Your task to perform on an android device: Open the Play Movies app and select the watchlist tab. Image 0: 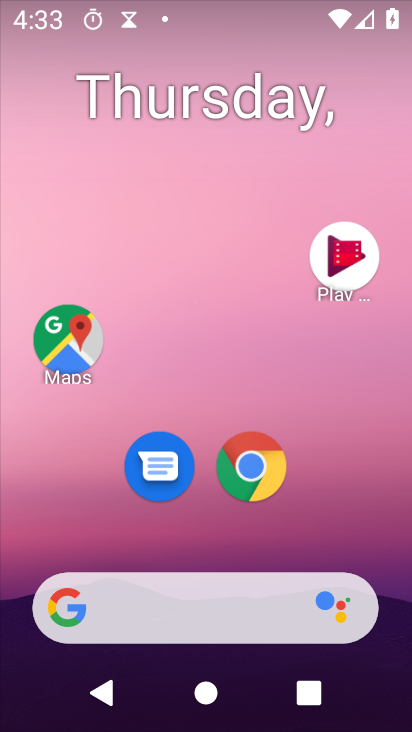
Step 0: drag from (218, 591) to (254, 1)
Your task to perform on an android device: Open the Play Movies app and select the watchlist tab. Image 1: 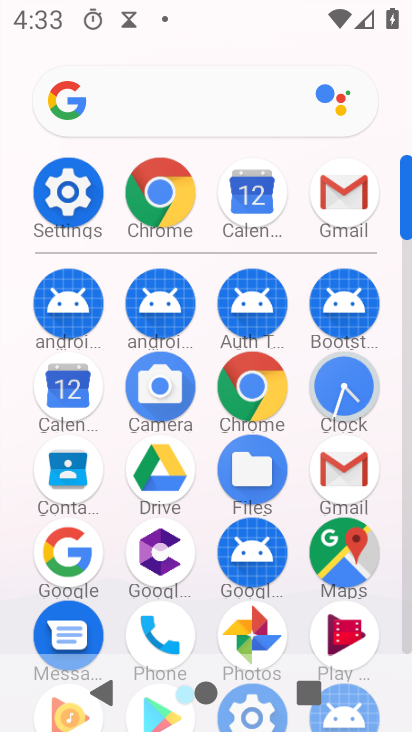
Step 1: drag from (284, 590) to (330, 256)
Your task to perform on an android device: Open the Play Movies app and select the watchlist tab. Image 2: 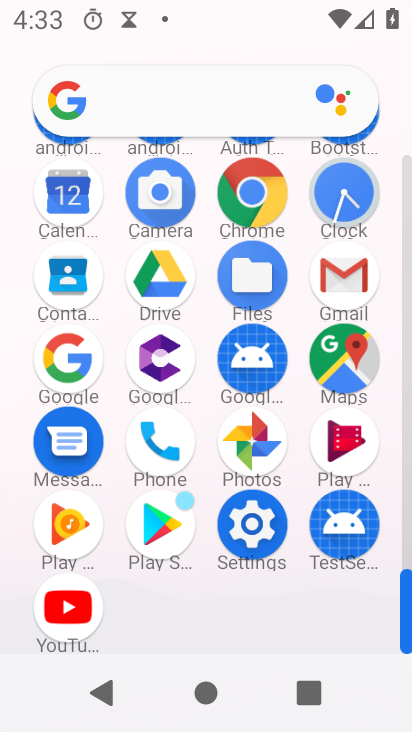
Step 2: click (328, 445)
Your task to perform on an android device: Open the Play Movies app and select the watchlist tab. Image 3: 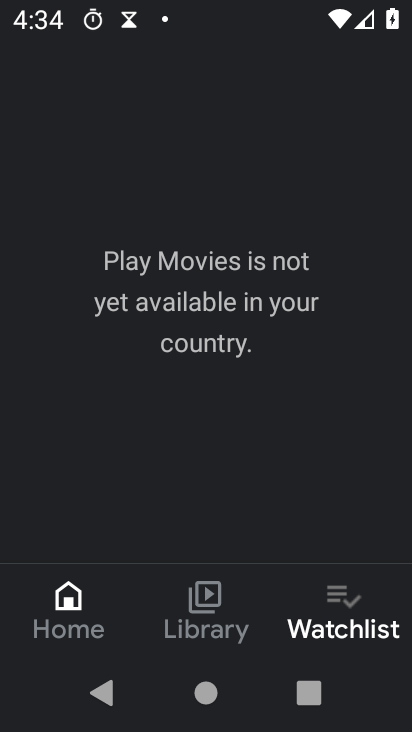
Step 3: click (354, 615)
Your task to perform on an android device: Open the Play Movies app and select the watchlist tab. Image 4: 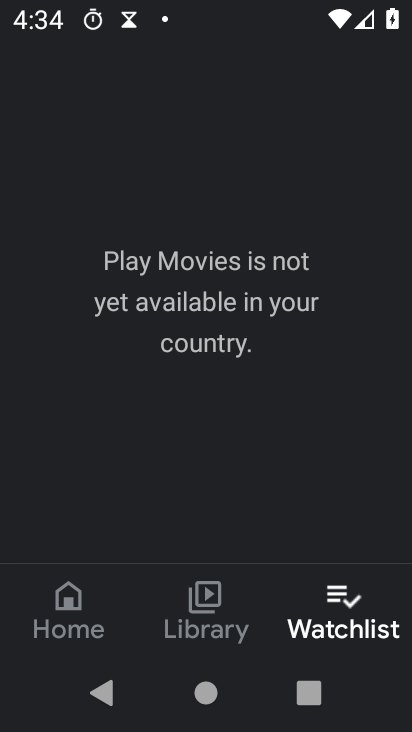
Step 4: task complete